Your task to perform on an android device: Open Google Maps and go to "Timeline" Image 0: 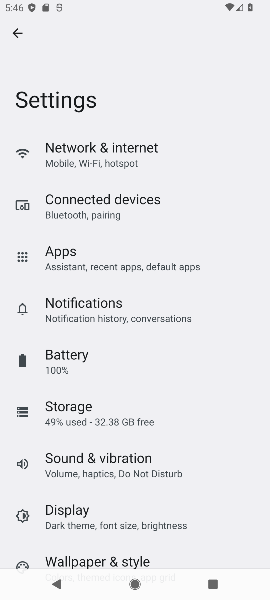
Step 0: press home button
Your task to perform on an android device: Open Google Maps and go to "Timeline" Image 1: 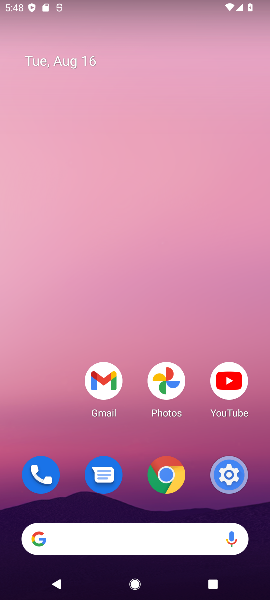
Step 1: drag from (190, 494) to (104, 5)
Your task to perform on an android device: Open Google Maps and go to "Timeline" Image 2: 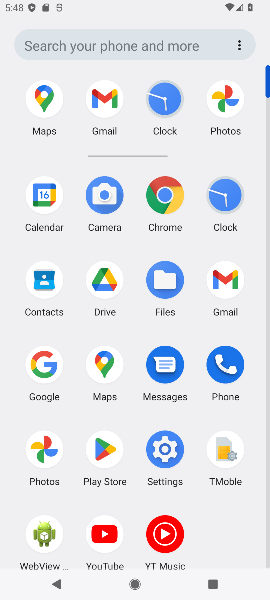
Step 2: click (105, 371)
Your task to perform on an android device: Open Google Maps and go to "Timeline" Image 3: 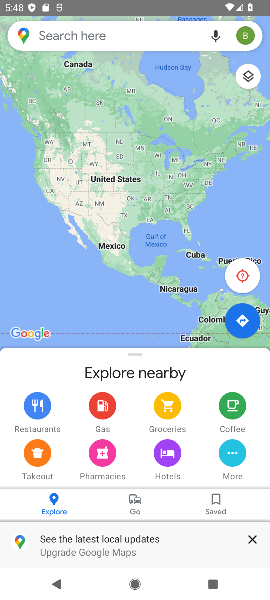
Step 3: click (246, 31)
Your task to perform on an android device: Open Google Maps and go to "Timeline" Image 4: 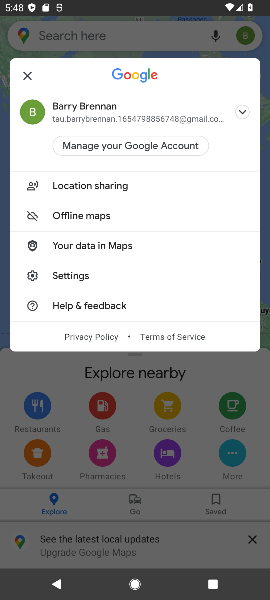
Step 4: task complete